Your task to perform on an android device: Open calendar and show me the second week of next month Image 0: 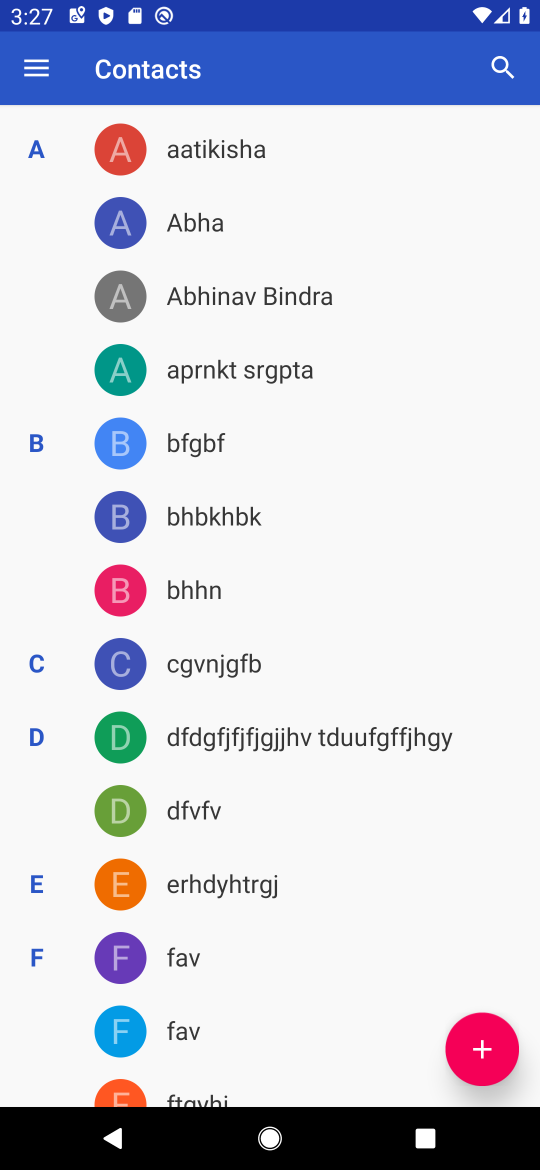
Step 0: press home button
Your task to perform on an android device: Open calendar and show me the second week of next month Image 1: 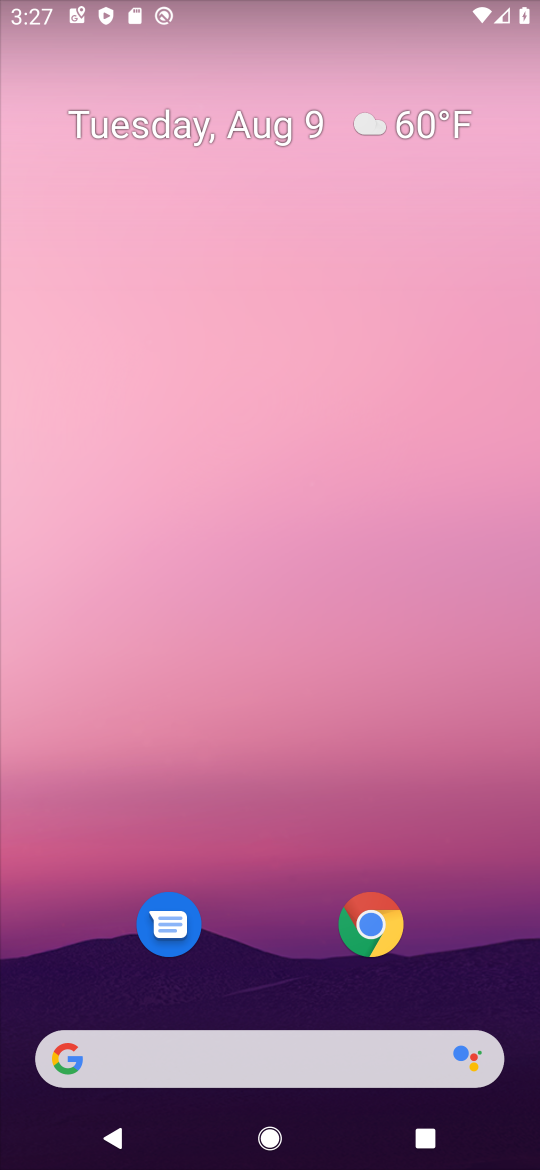
Step 1: drag from (272, 925) to (402, 46)
Your task to perform on an android device: Open calendar and show me the second week of next month Image 2: 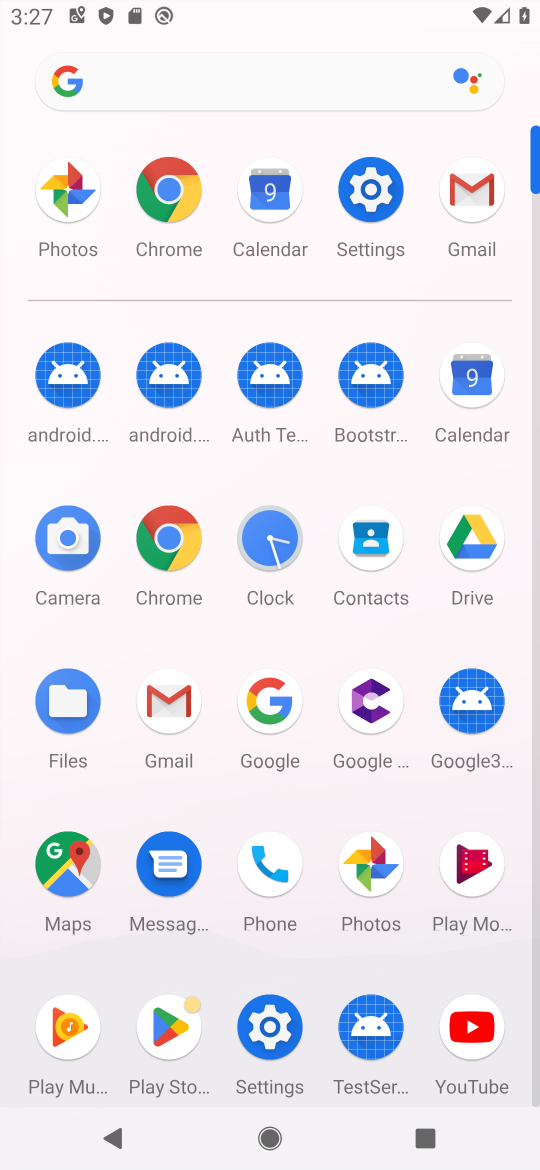
Step 2: click (276, 194)
Your task to perform on an android device: Open calendar and show me the second week of next month Image 3: 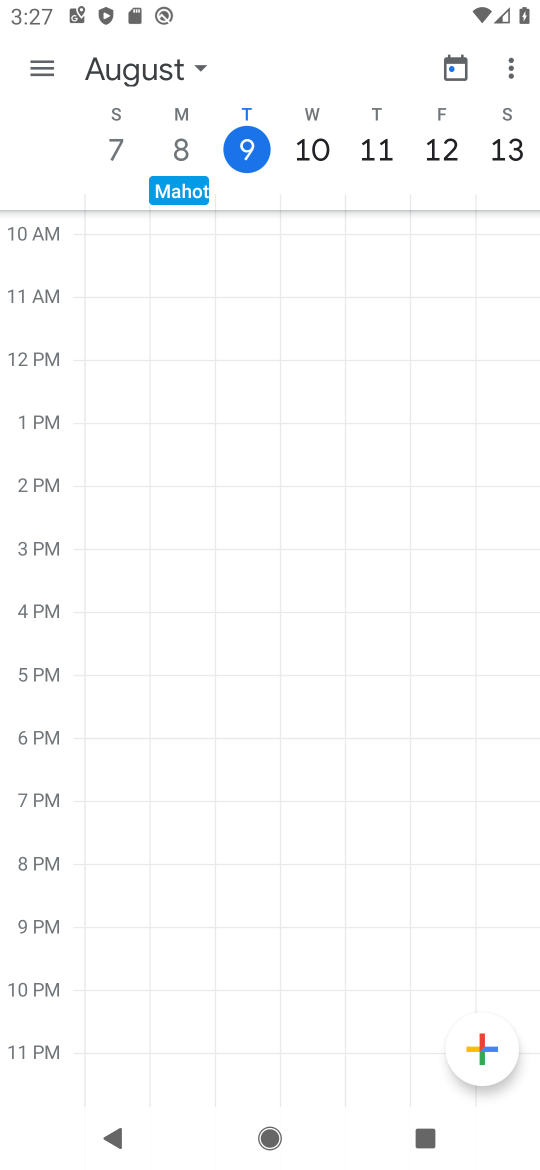
Step 3: task complete